Your task to perform on an android device: toggle pop-ups in chrome Image 0: 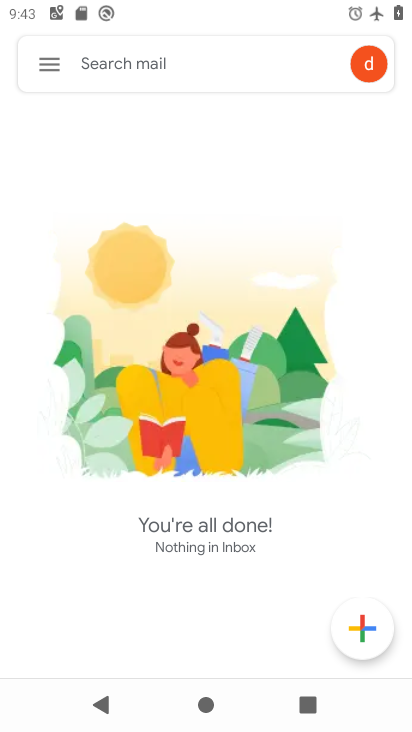
Step 0: press home button
Your task to perform on an android device: toggle pop-ups in chrome Image 1: 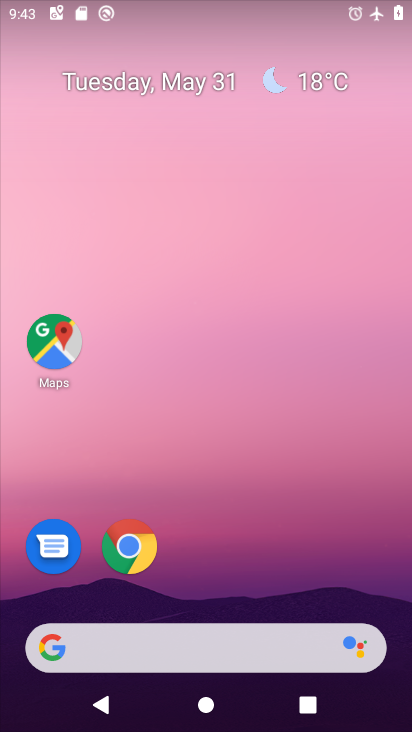
Step 1: click (124, 530)
Your task to perform on an android device: toggle pop-ups in chrome Image 2: 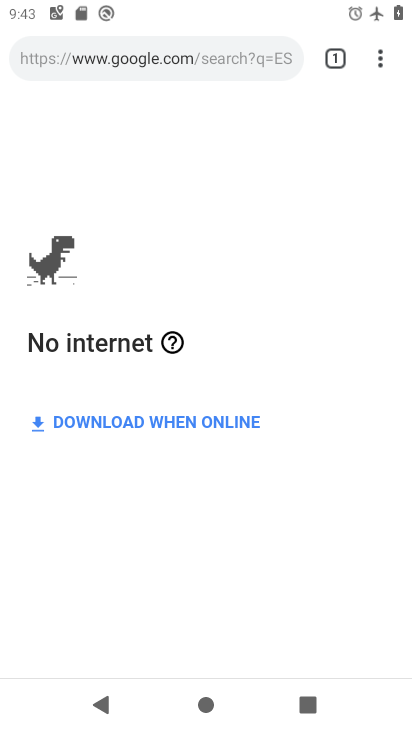
Step 2: click (371, 64)
Your task to perform on an android device: toggle pop-ups in chrome Image 3: 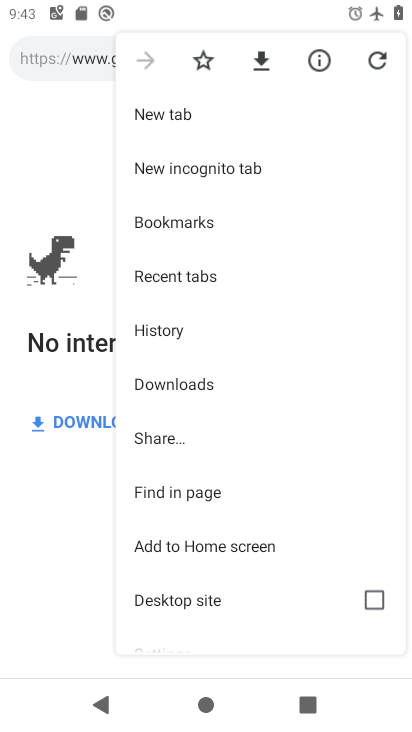
Step 3: drag from (182, 611) to (238, 316)
Your task to perform on an android device: toggle pop-ups in chrome Image 4: 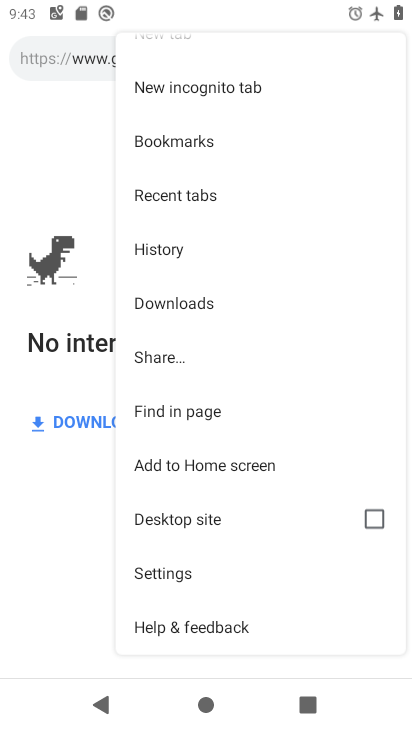
Step 4: click (175, 567)
Your task to perform on an android device: toggle pop-ups in chrome Image 5: 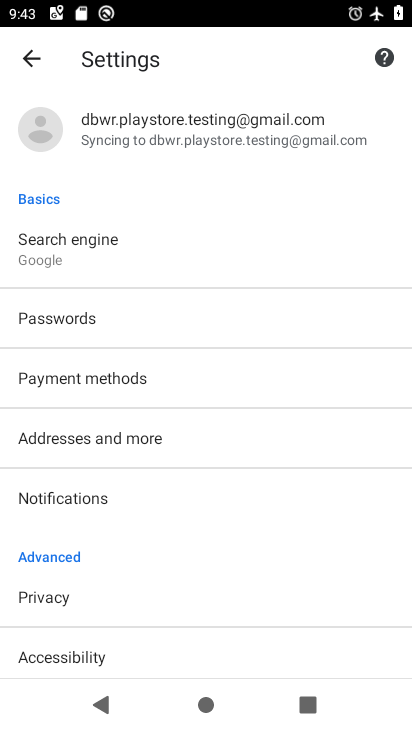
Step 5: drag from (119, 575) to (158, 372)
Your task to perform on an android device: toggle pop-ups in chrome Image 6: 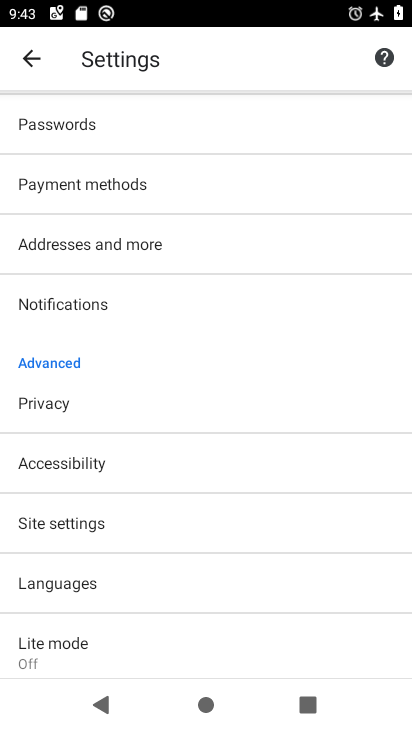
Step 6: click (78, 530)
Your task to perform on an android device: toggle pop-ups in chrome Image 7: 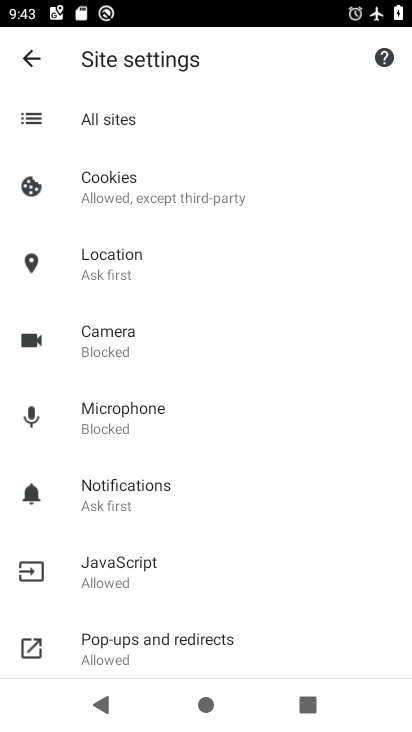
Step 7: click (142, 645)
Your task to perform on an android device: toggle pop-ups in chrome Image 8: 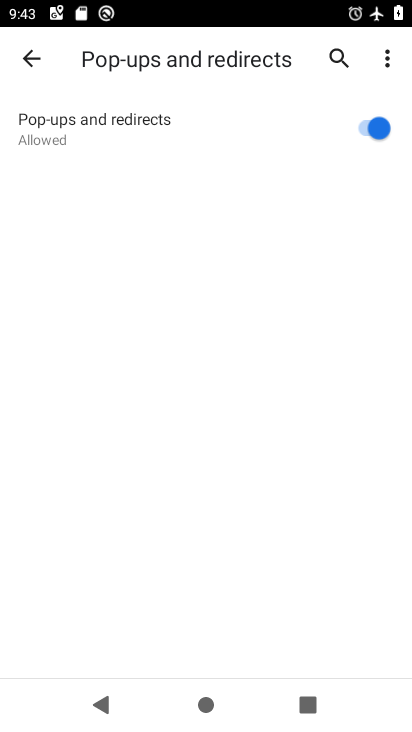
Step 8: click (342, 125)
Your task to perform on an android device: toggle pop-ups in chrome Image 9: 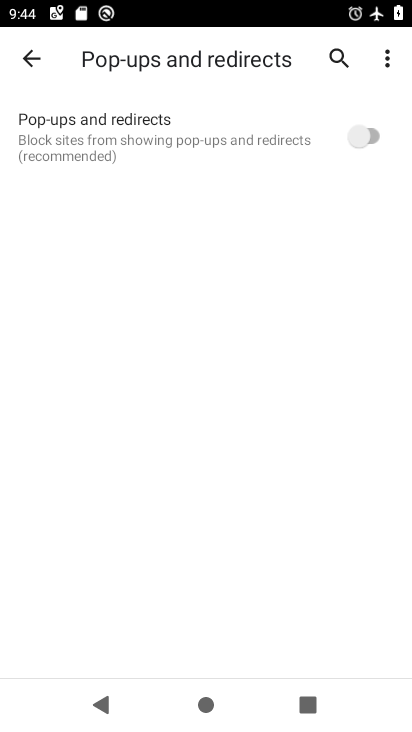
Step 9: task complete